Your task to perform on an android device: Open Google Maps and go to "Timeline" Image 0: 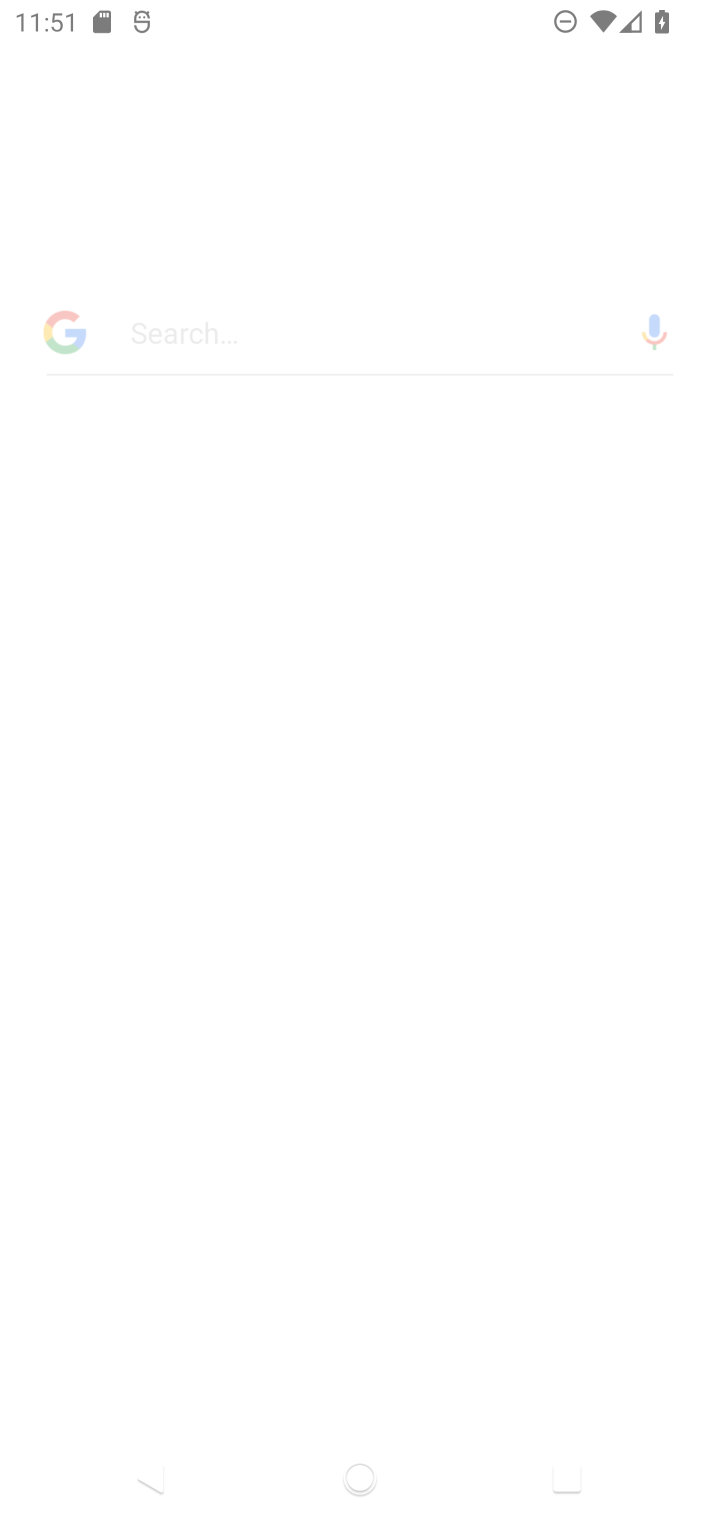
Step 0: press home button
Your task to perform on an android device: Open Google Maps and go to "Timeline" Image 1: 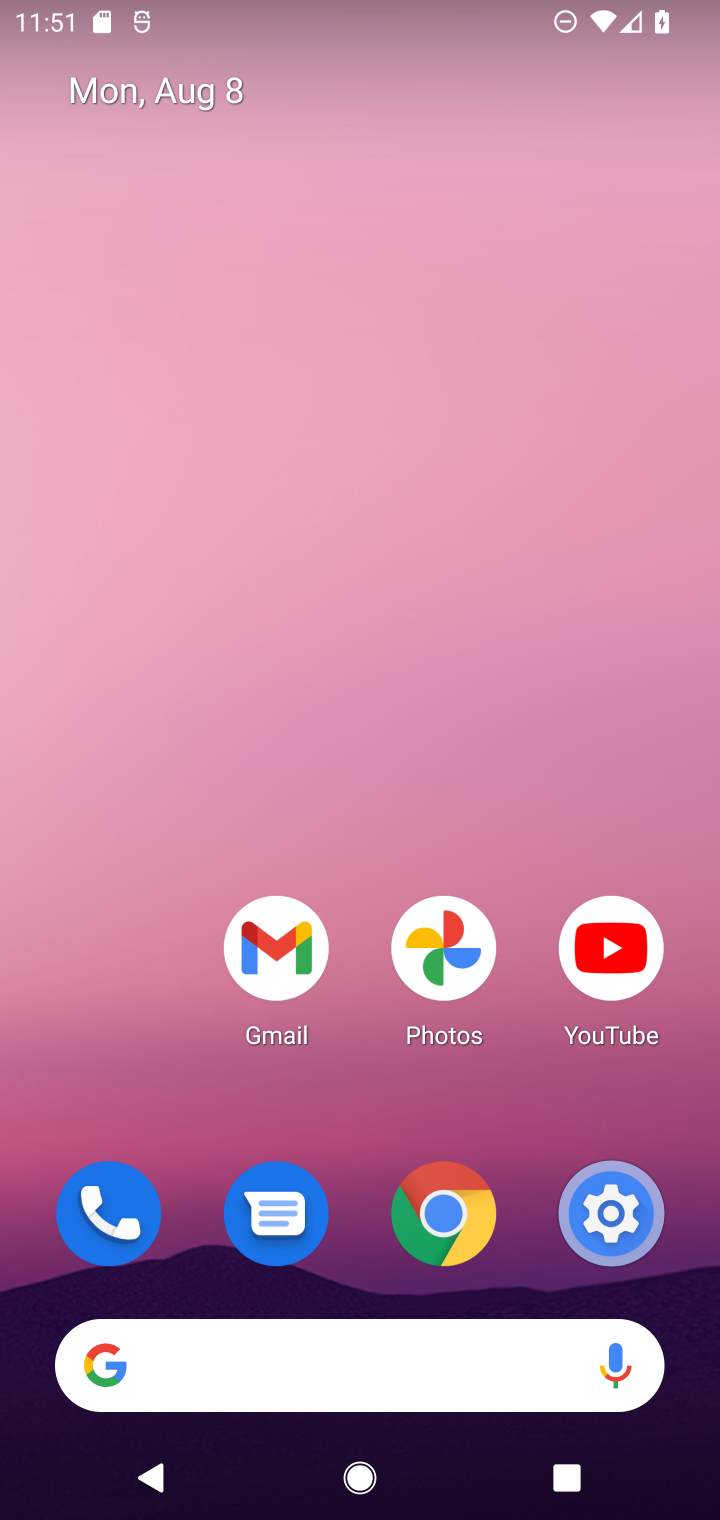
Step 1: drag from (365, 1164) to (396, 97)
Your task to perform on an android device: Open Google Maps and go to "Timeline" Image 2: 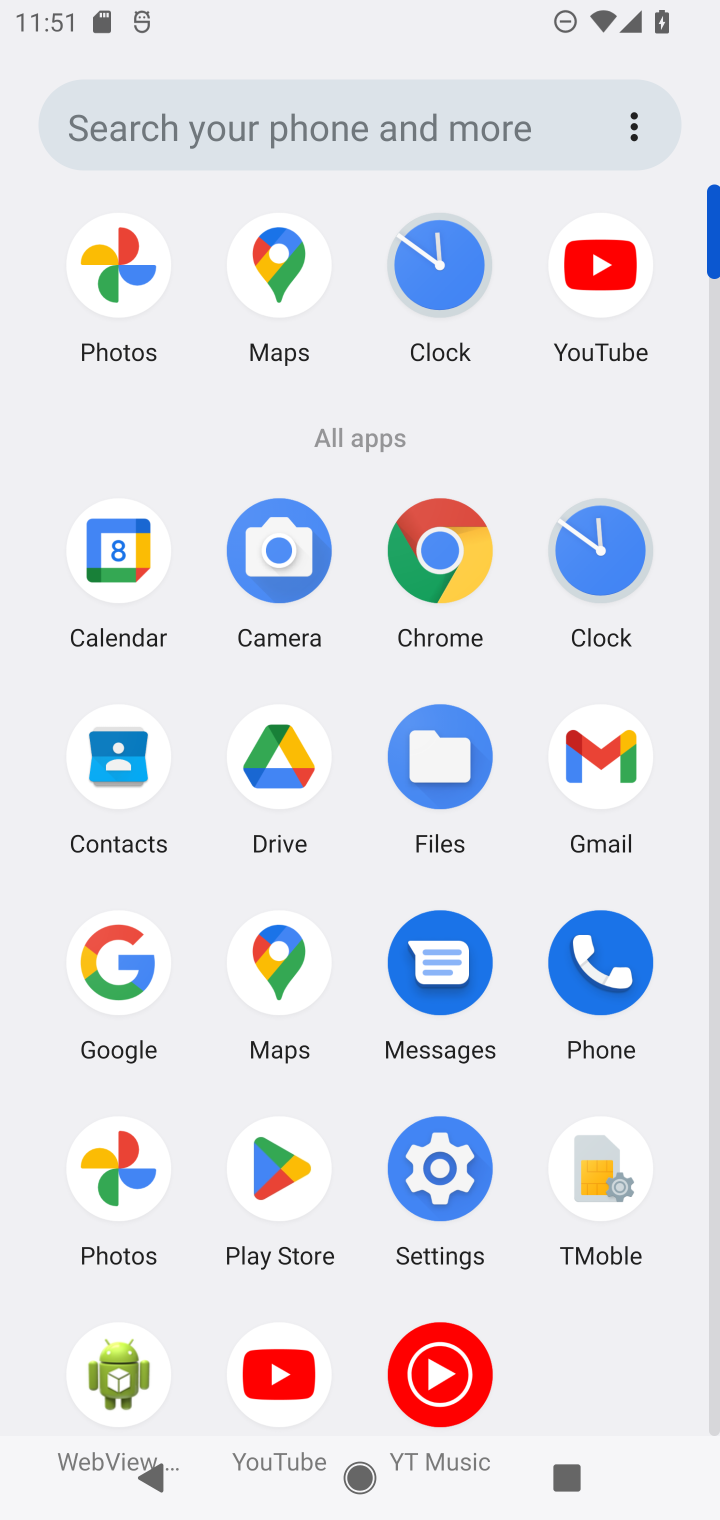
Step 2: click (285, 945)
Your task to perform on an android device: Open Google Maps and go to "Timeline" Image 3: 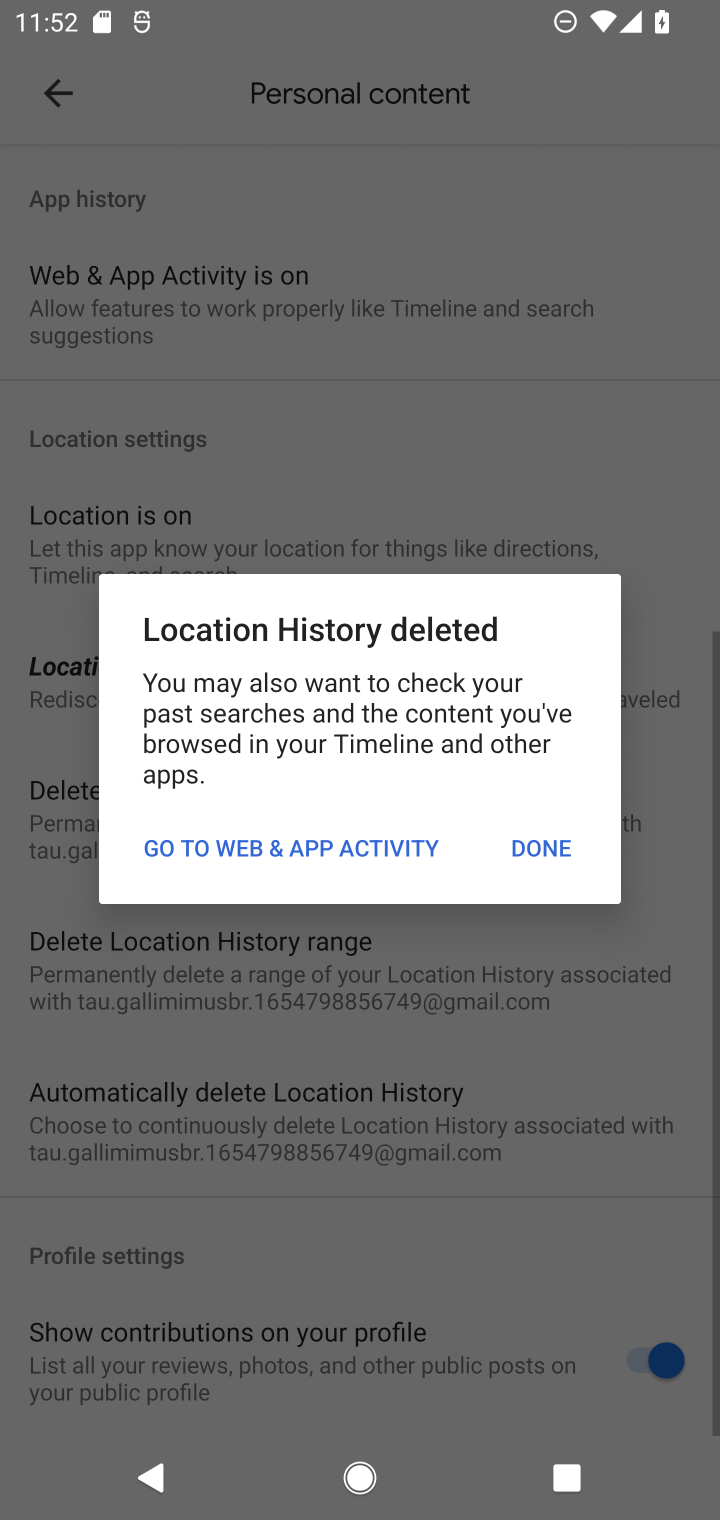
Step 3: click (561, 859)
Your task to perform on an android device: Open Google Maps and go to "Timeline" Image 4: 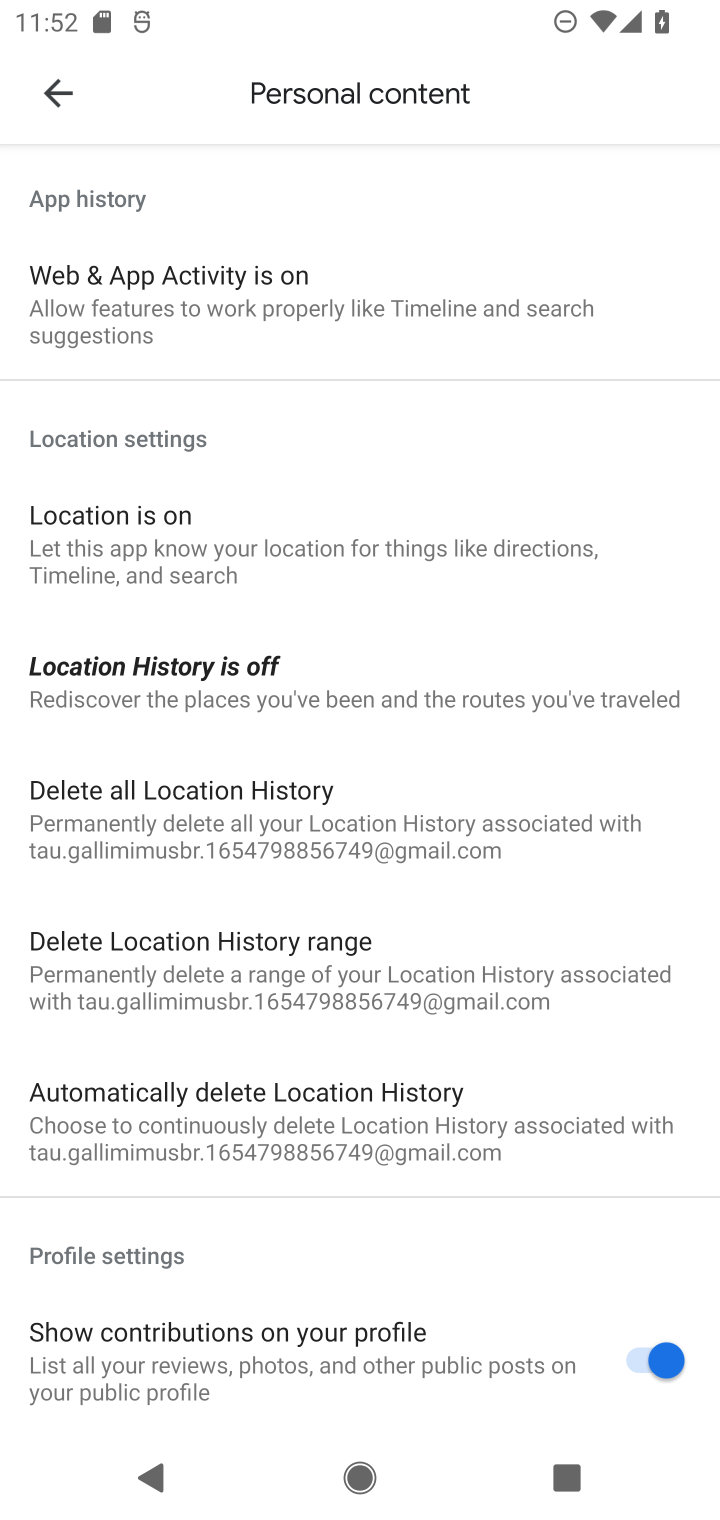
Step 4: click (49, 72)
Your task to perform on an android device: Open Google Maps and go to "Timeline" Image 5: 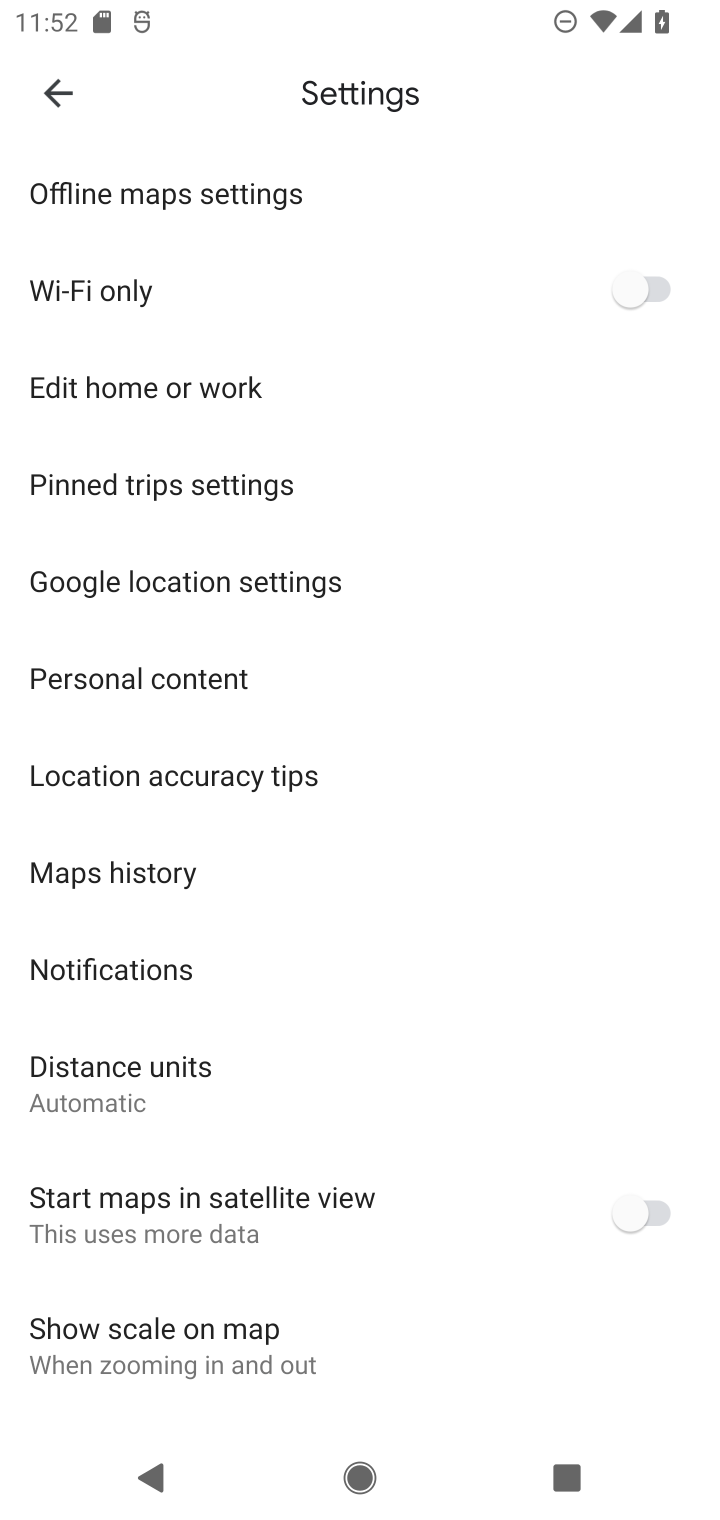
Step 5: click (72, 79)
Your task to perform on an android device: Open Google Maps and go to "Timeline" Image 6: 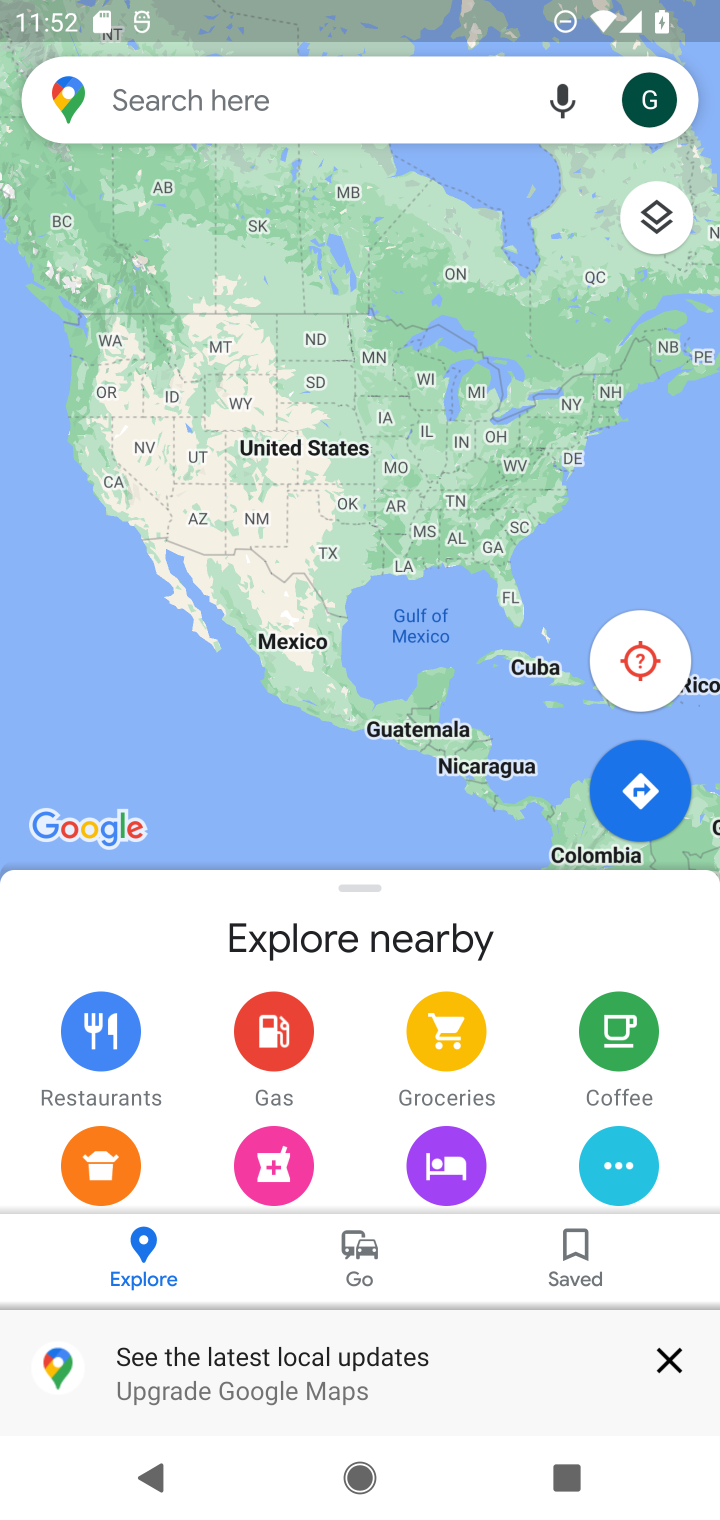
Step 6: click (665, 1360)
Your task to perform on an android device: Open Google Maps and go to "Timeline" Image 7: 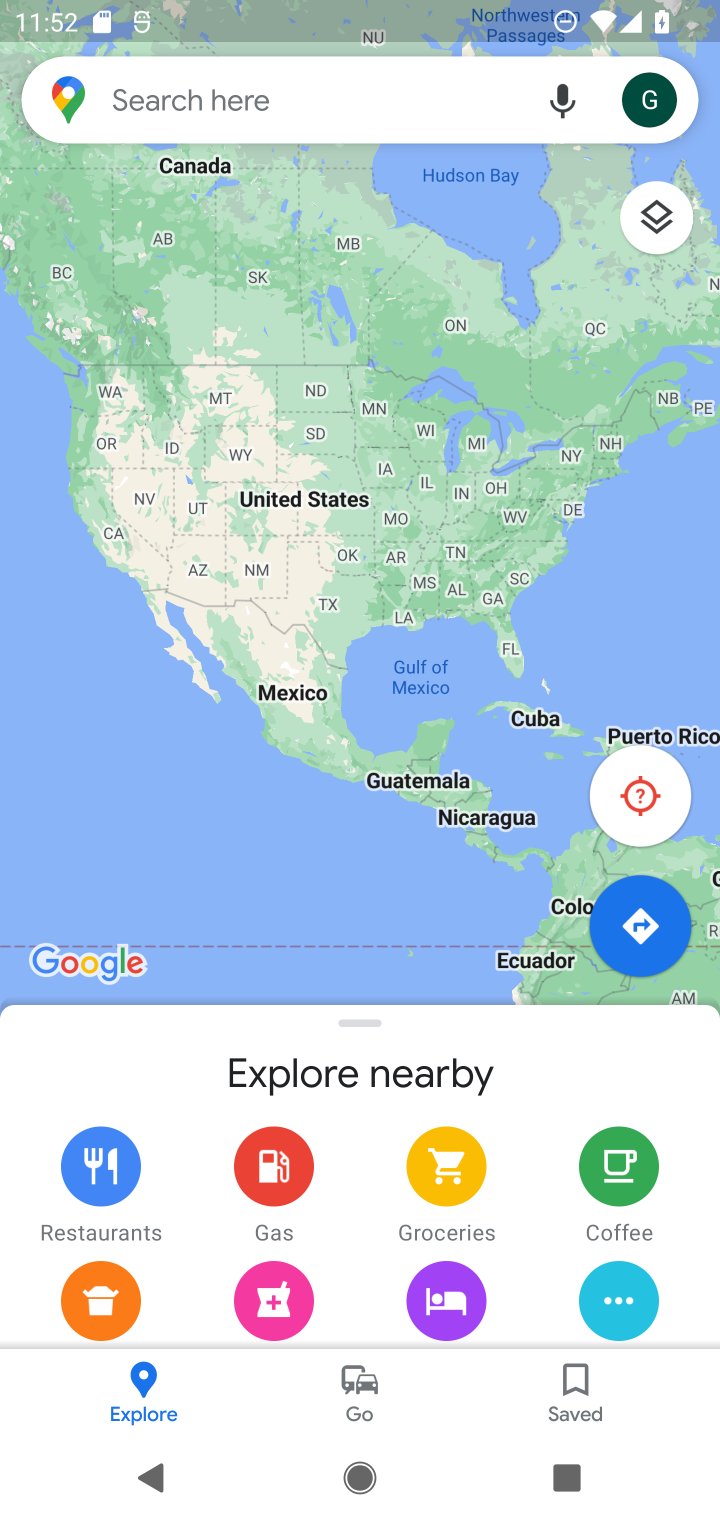
Step 7: click (653, 90)
Your task to perform on an android device: Open Google Maps and go to "Timeline" Image 8: 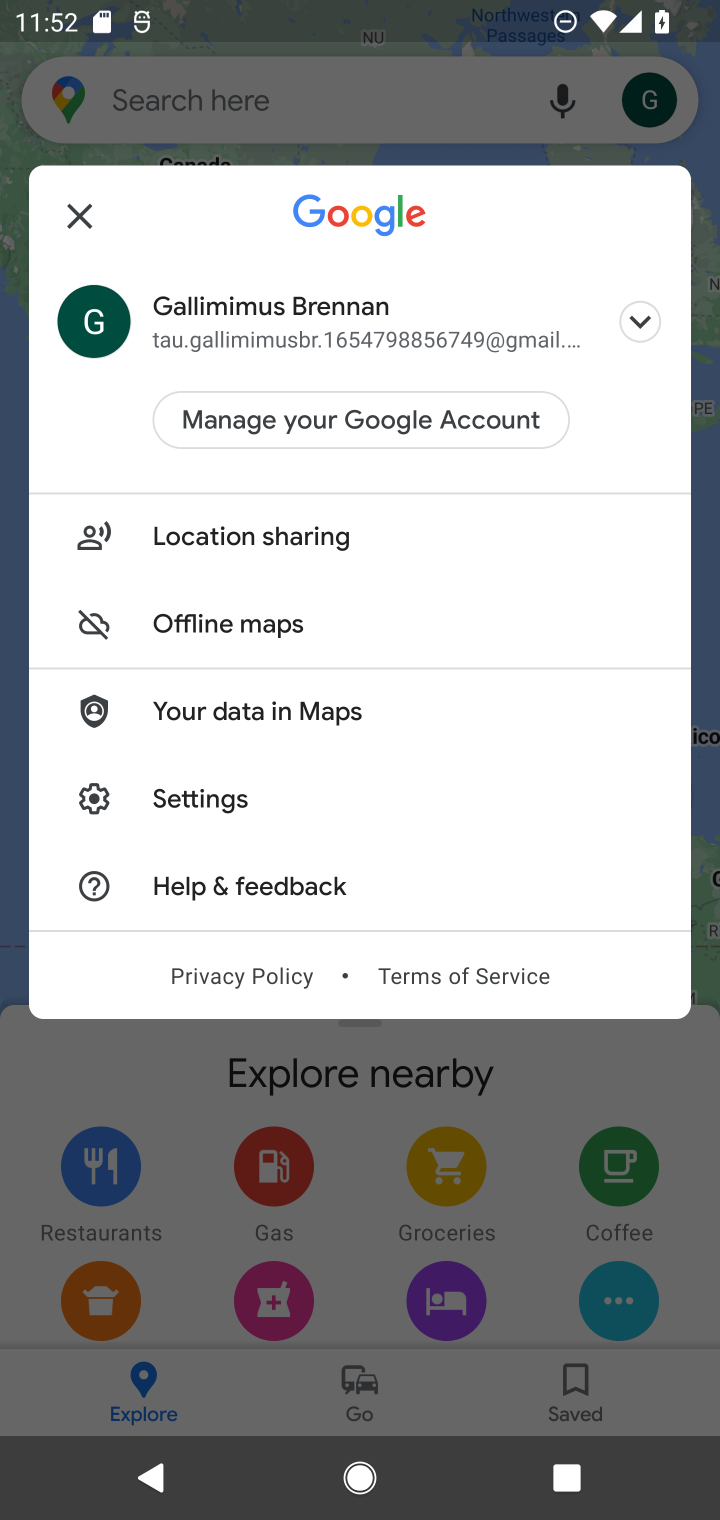
Step 8: click (639, 308)
Your task to perform on an android device: Open Google Maps and go to "Timeline" Image 9: 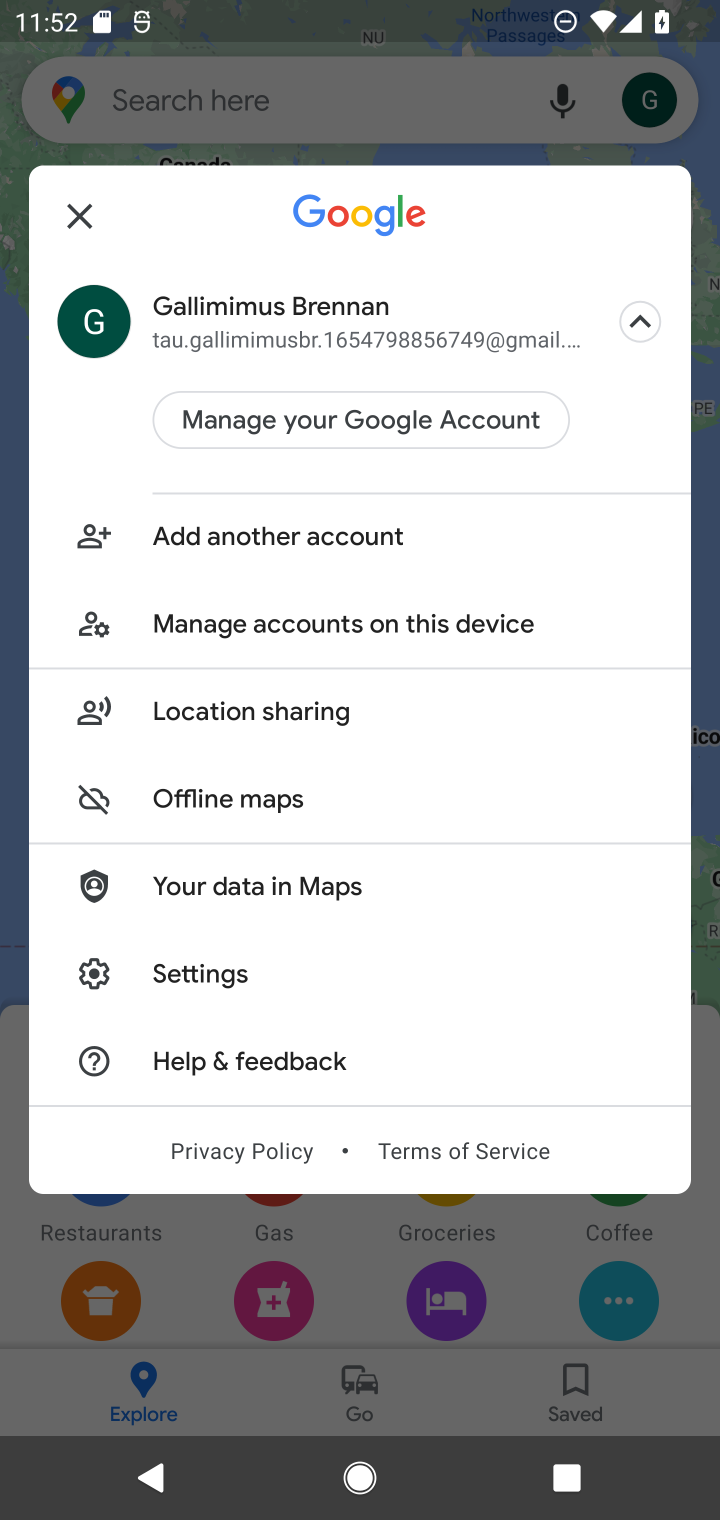
Step 9: click (311, 1178)
Your task to perform on an android device: Open Google Maps and go to "Timeline" Image 10: 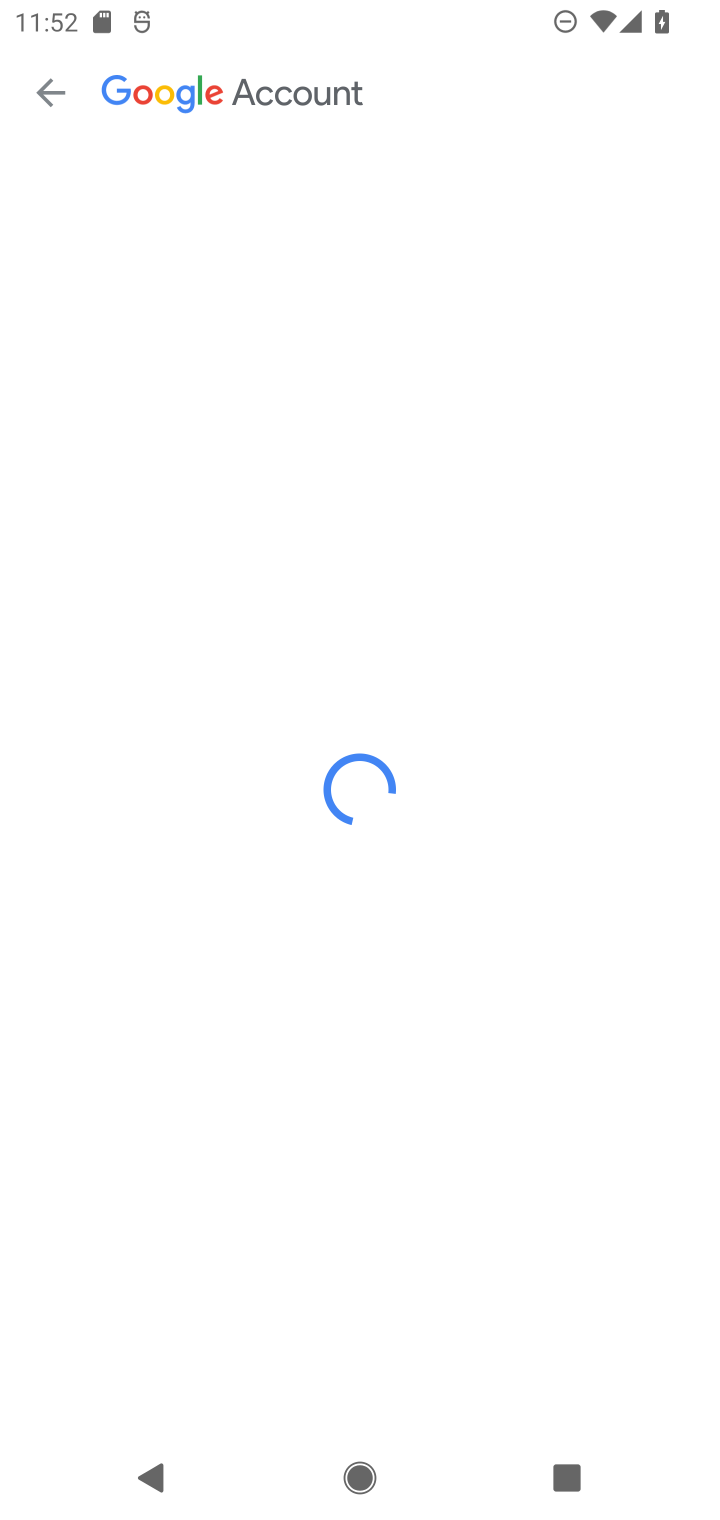
Step 10: click (573, 1400)
Your task to perform on an android device: Open Google Maps and go to "Timeline" Image 11: 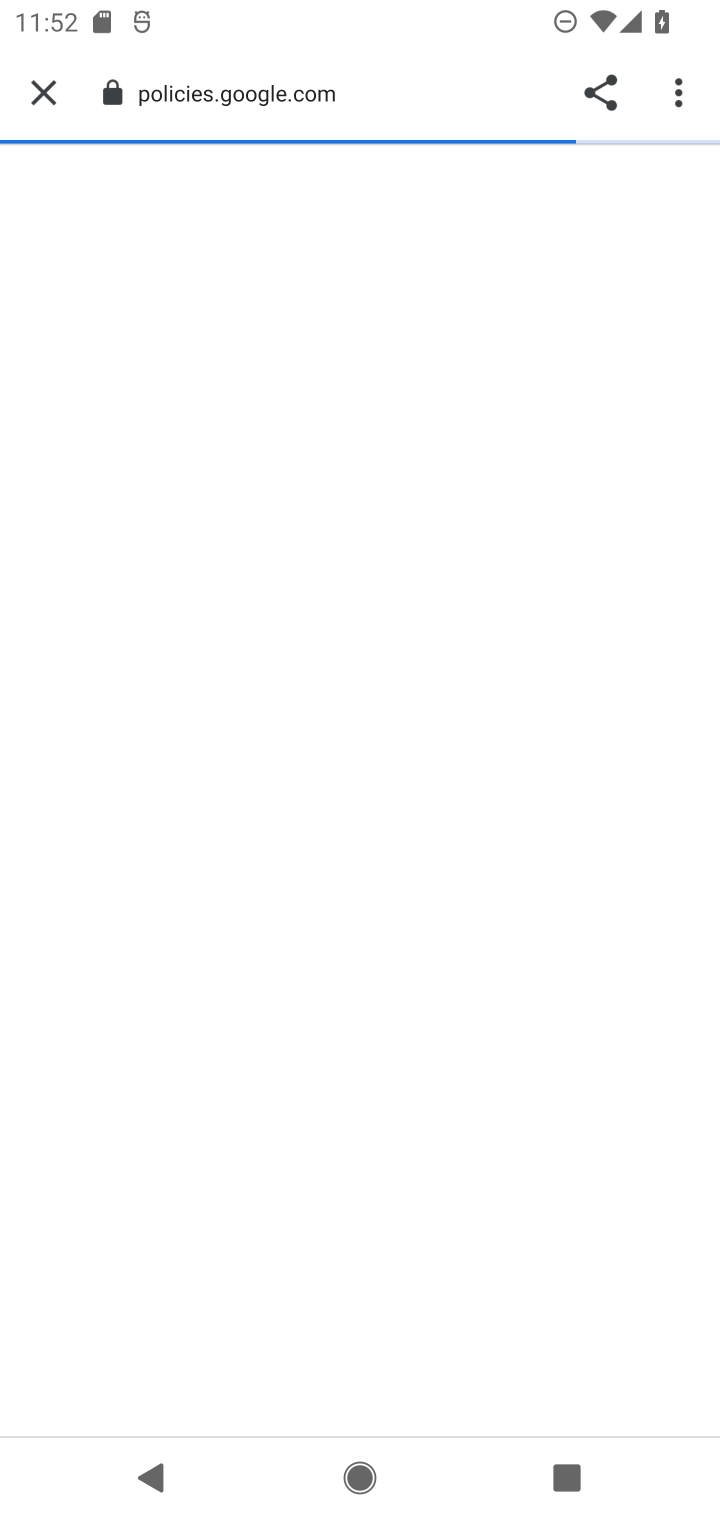
Step 11: click (41, 75)
Your task to perform on an android device: Open Google Maps and go to "Timeline" Image 12: 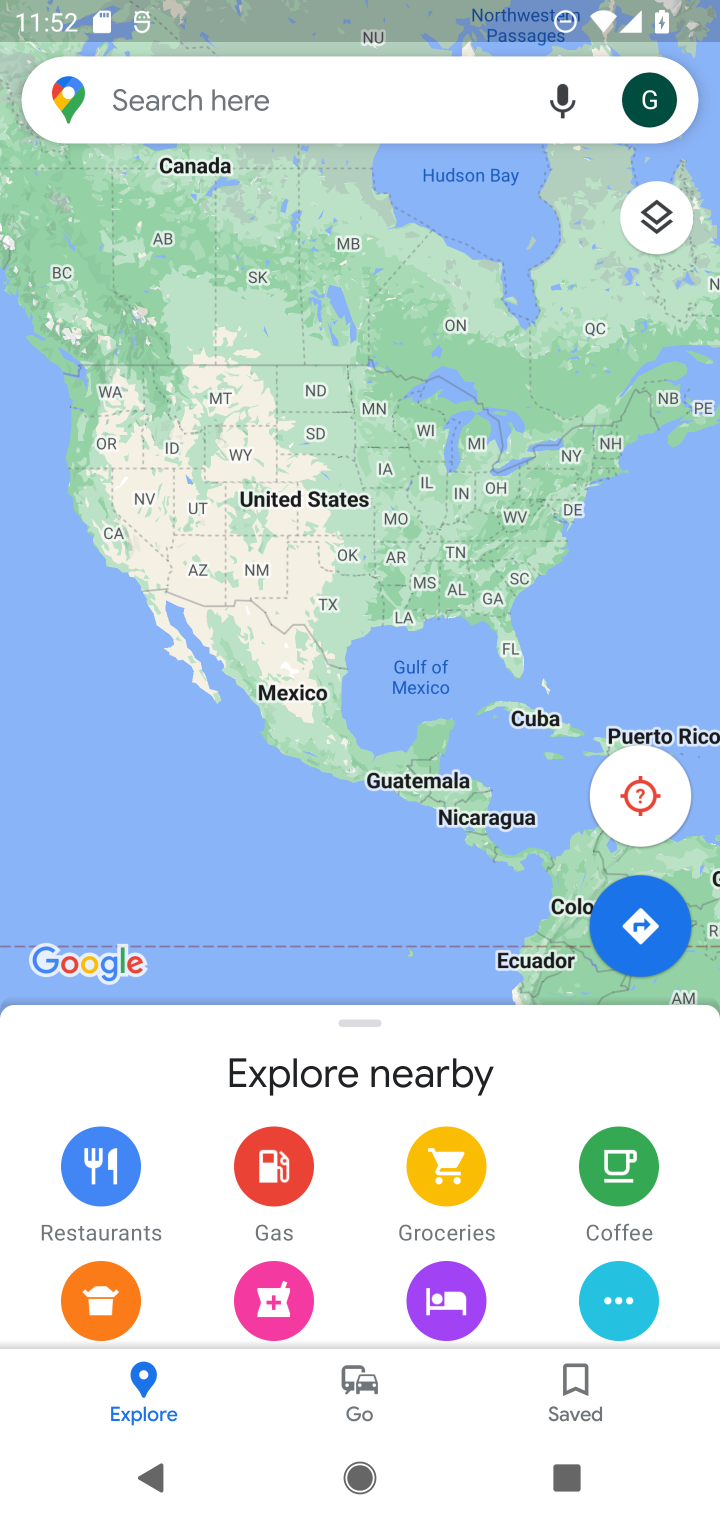
Step 12: task complete